Your task to perform on an android device: Open calendar and show me the fourth week of next month Image 0: 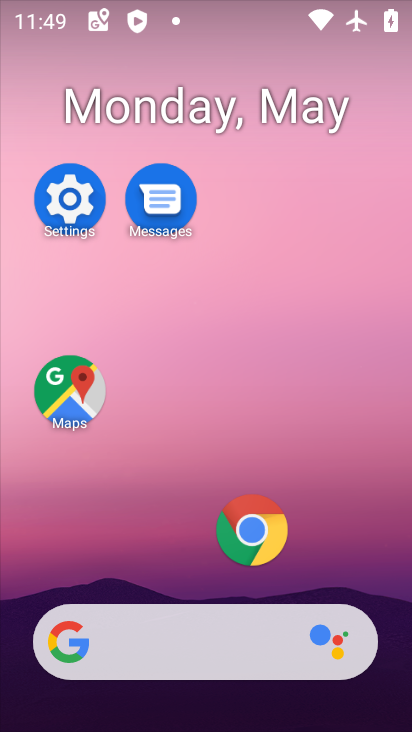
Step 0: drag from (299, 92) to (318, 8)
Your task to perform on an android device: Open calendar and show me the fourth week of next month Image 1: 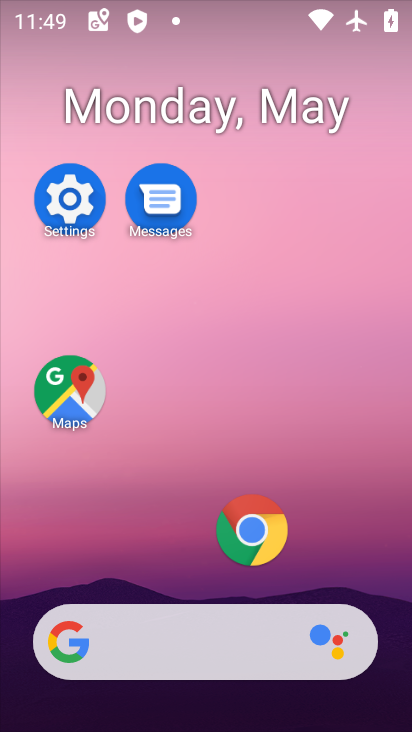
Step 1: drag from (184, 522) to (315, 43)
Your task to perform on an android device: Open calendar and show me the fourth week of next month Image 2: 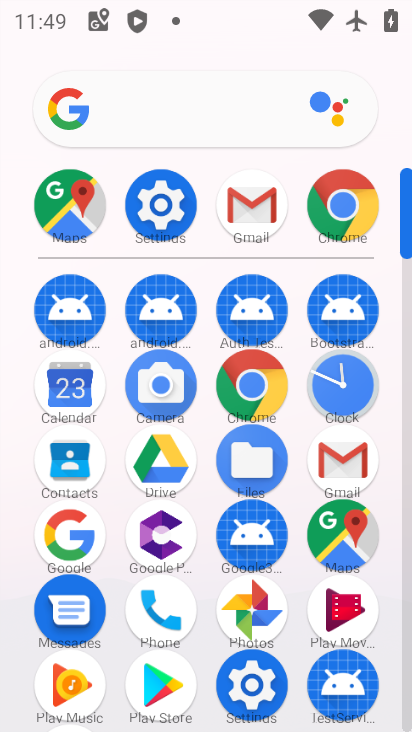
Step 2: click (83, 387)
Your task to perform on an android device: Open calendar and show me the fourth week of next month Image 3: 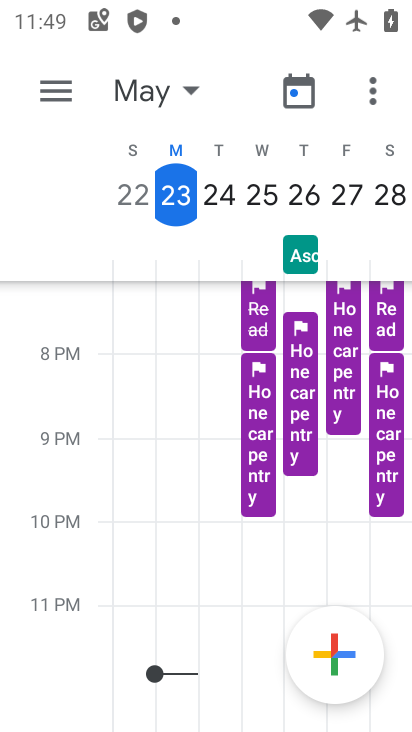
Step 3: click (164, 89)
Your task to perform on an android device: Open calendar and show me the fourth week of next month Image 4: 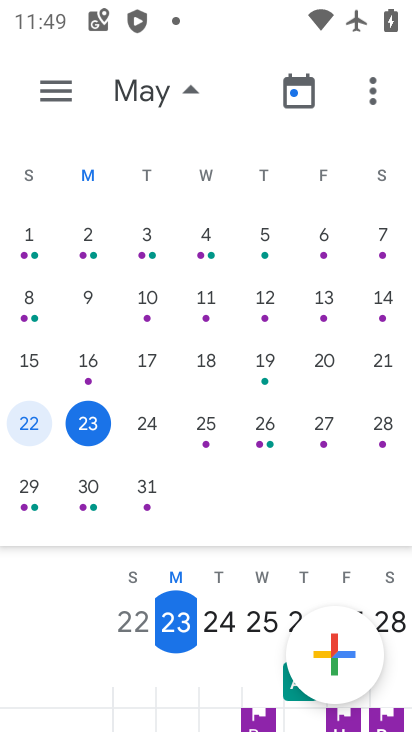
Step 4: drag from (377, 393) to (6, 414)
Your task to perform on an android device: Open calendar and show me the fourth week of next month Image 5: 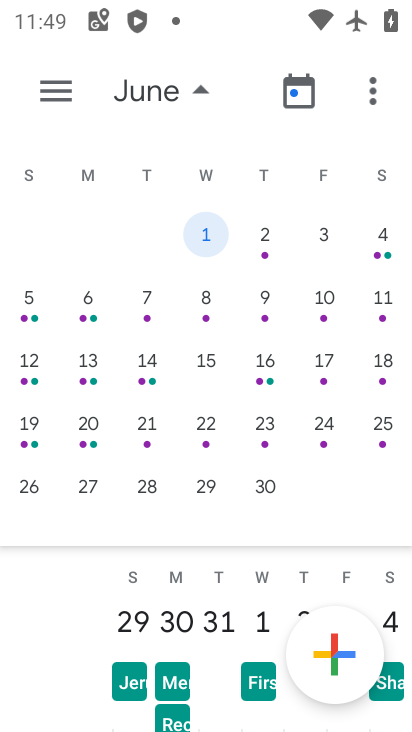
Step 5: click (31, 413)
Your task to perform on an android device: Open calendar and show me the fourth week of next month Image 6: 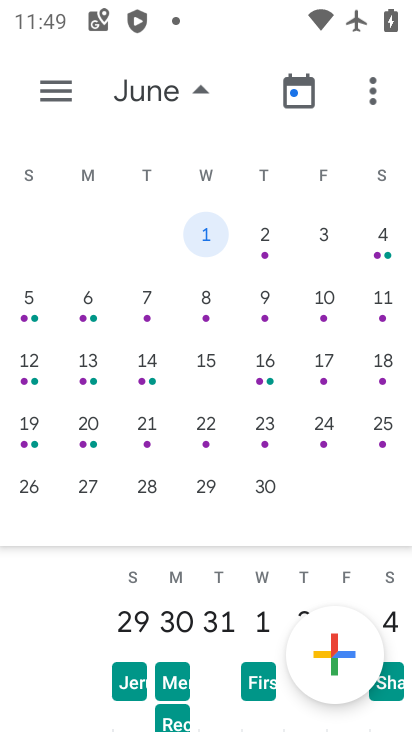
Step 6: click (30, 432)
Your task to perform on an android device: Open calendar and show me the fourth week of next month Image 7: 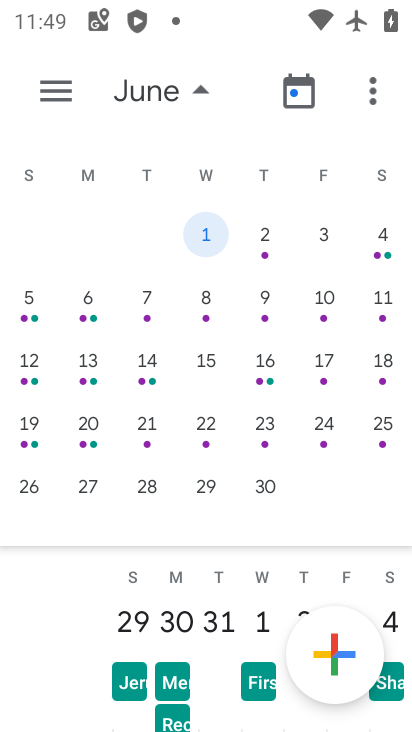
Step 7: click (33, 422)
Your task to perform on an android device: Open calendar and show me the fourth week of next month Image 8: 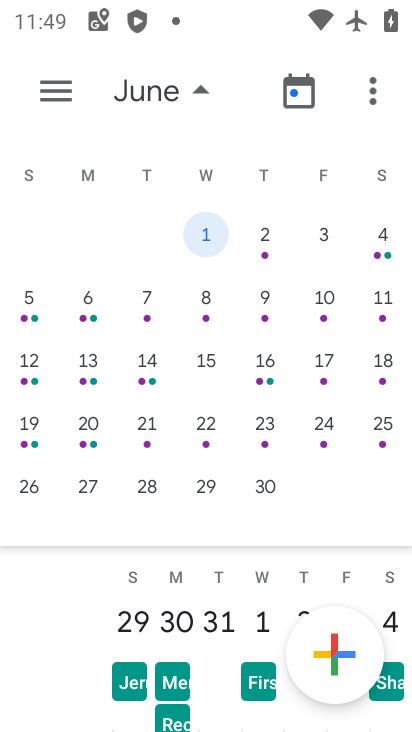
Step 8: click (41, 426)
Your task to perform on an android device: Open calendar and show me the fourth week of next month Image 9: 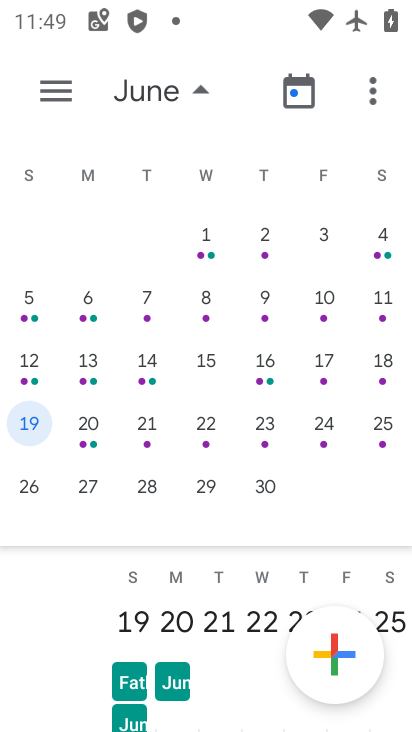
Step 9: click (195, 99)
Your task to perform on an android device: Open calendar and show me the fourth week of next month Image 10: 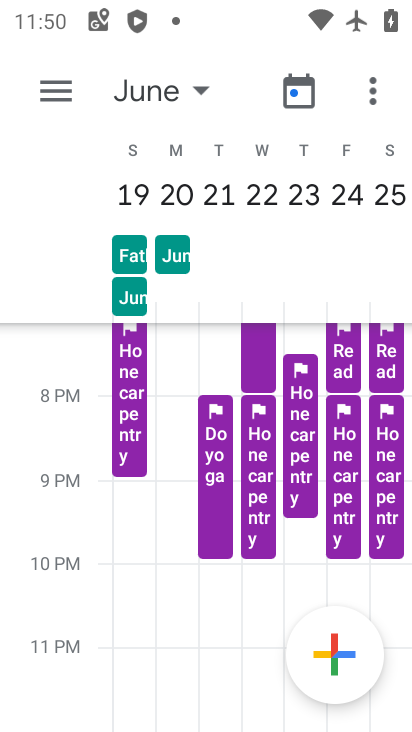
Step 10: task complete